Your task to perform on an android device: turn off sleep mode Image 0: 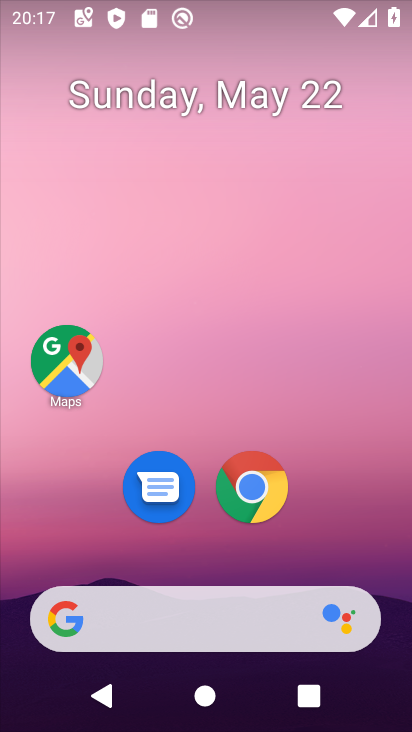
Step 0: drag from (193, 550) to (223, 37)
Your task to perform on an android device: turn off sleep mode Image 1: 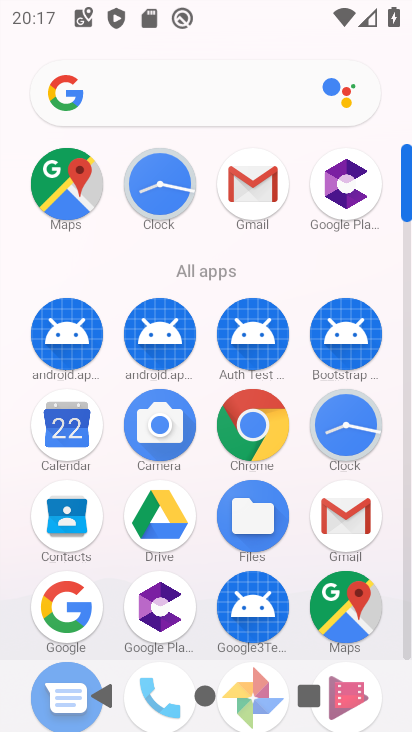
Step 1: drag from (198, 580) to (220, 170)
Your task to perform on an android device: turn off sleep mode Image 2: 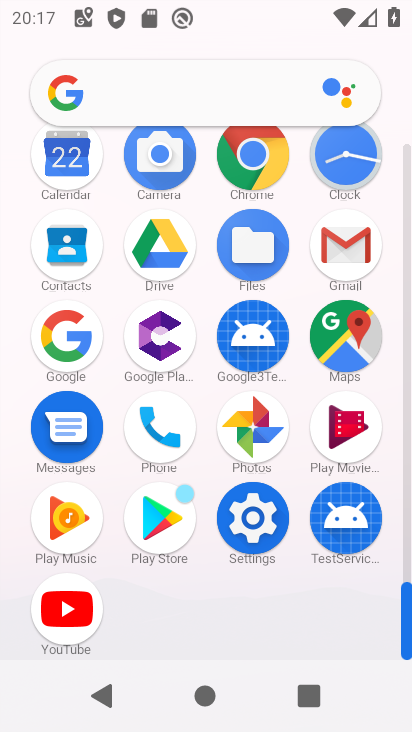
Step 2: click (245, 513)
Your task to perform on an android device: turn off sleep mode Image 3: 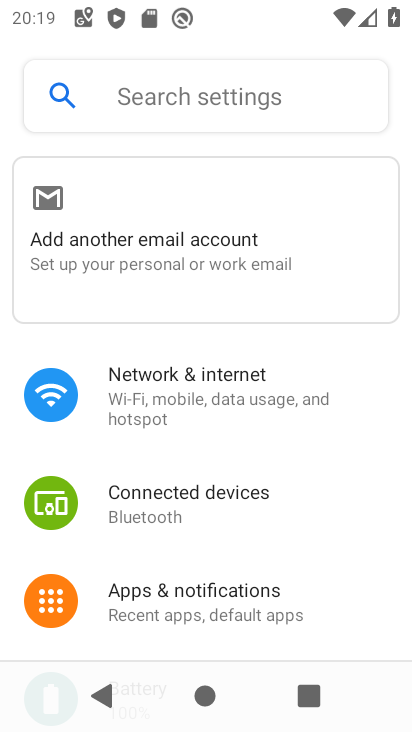
Step 3: task complete